Your task to perform on an android device: Go to internet settings Image 0: 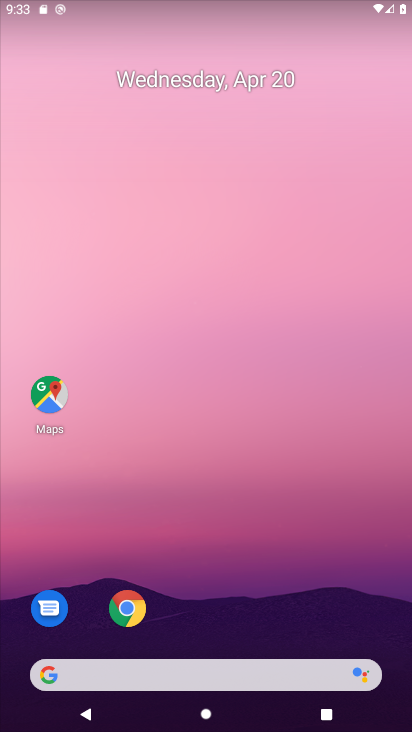
Step 0: press home button
Your task to perform on an android device: Go to internet settings Image 1: 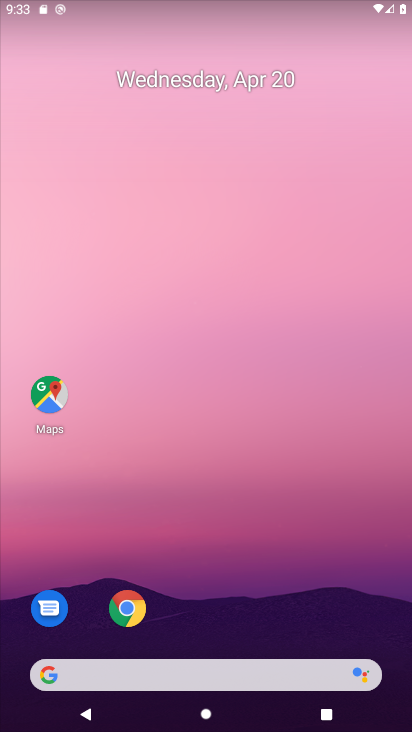
Step 1: drag from (132, 635) to (107, 201)
Your task to perform on an android device: Go to internet settings Image 2: 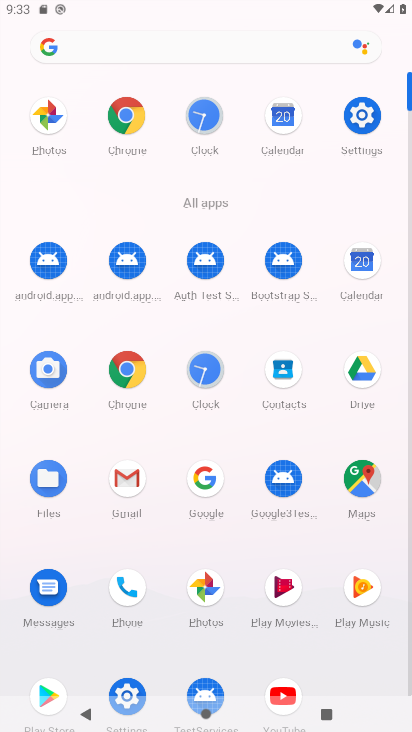
Step 2: click (360, 113)
Your task to perform on an android device: Go to internet settings Image 3: 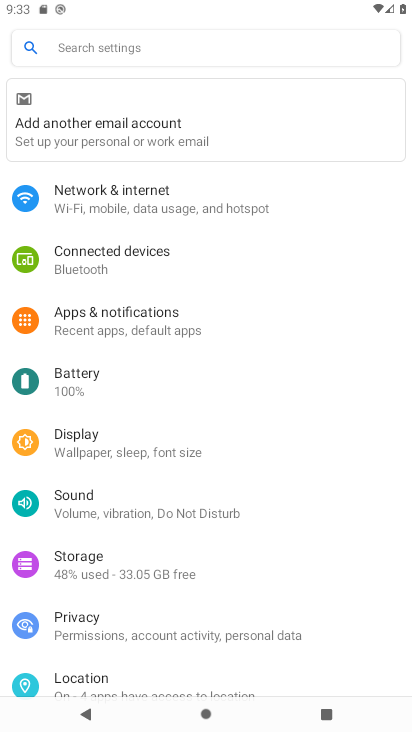
Step 3: click (171, 203)
Your task to perform on an android device: Go to internet settings Image 4: 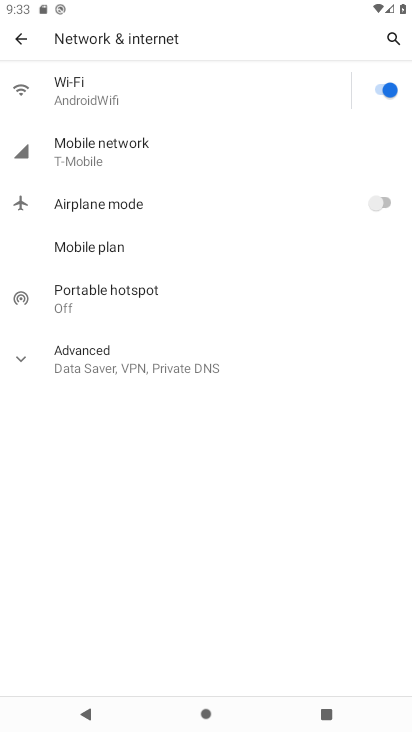
Step 4: click (84, 145)
Your task to perform on an android device: Go to internet settings Image 5: 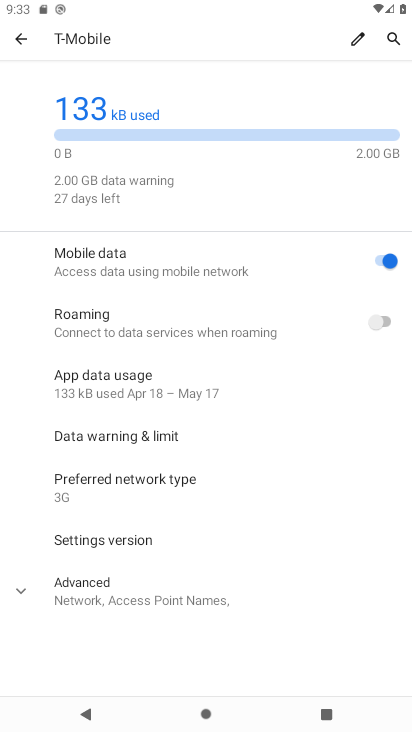
Step 5: task complete